Your task to perform on an android device: What is the news today? Image 0: 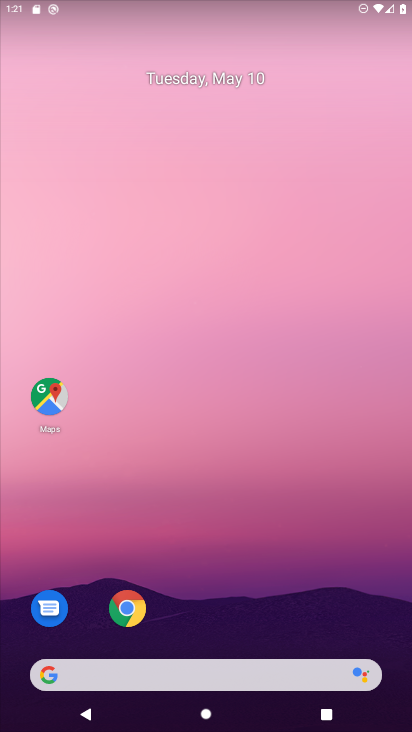
Step 0: drag from (311, 576) to (296, 110)
Your task to perform on an android device: What is the news today? Image 1: 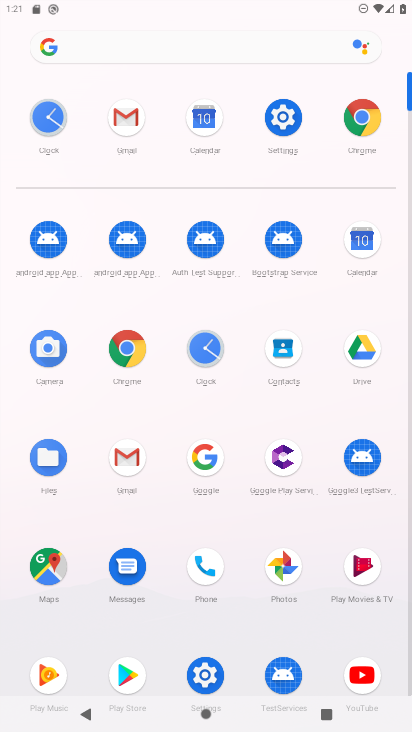
Step 1: click (129, 348)
Your task to perform on an android device: What is the news today? Image 2: 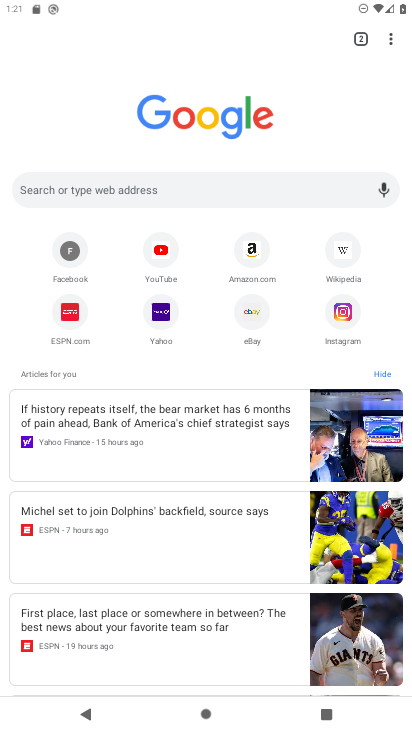
Step 2: click (189, 173)
Your task to perform on an android device: What is the news today? Image 3: 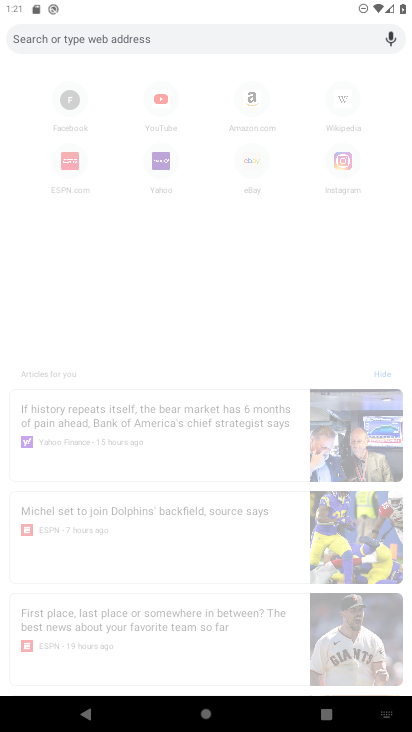
Step 3: type "what is the news today"
Your task to perform on an android device: What is the news today? Image 4: 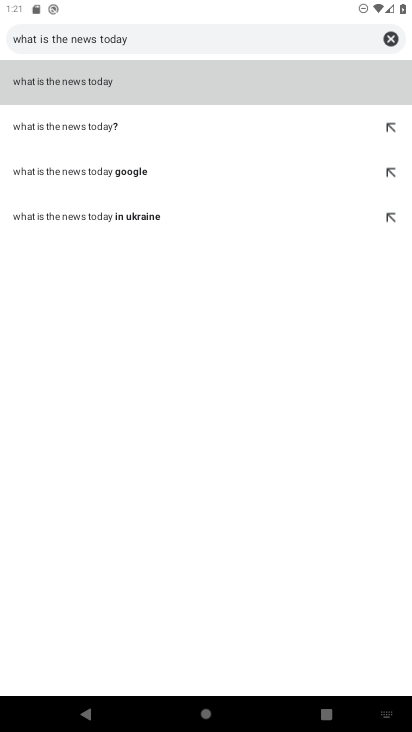
Step 4: click (133, 77)
Your task to perform on an android device: What is the news today? Image 5: 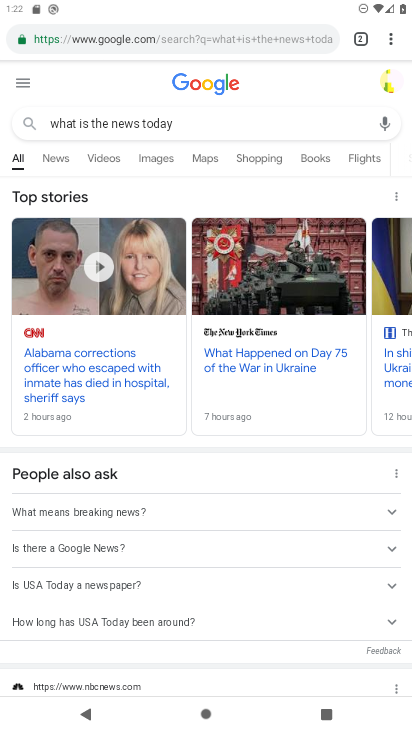
Step 5: task complete